Your task to perform on an android device: Open Maps and search for coffee Image 0: 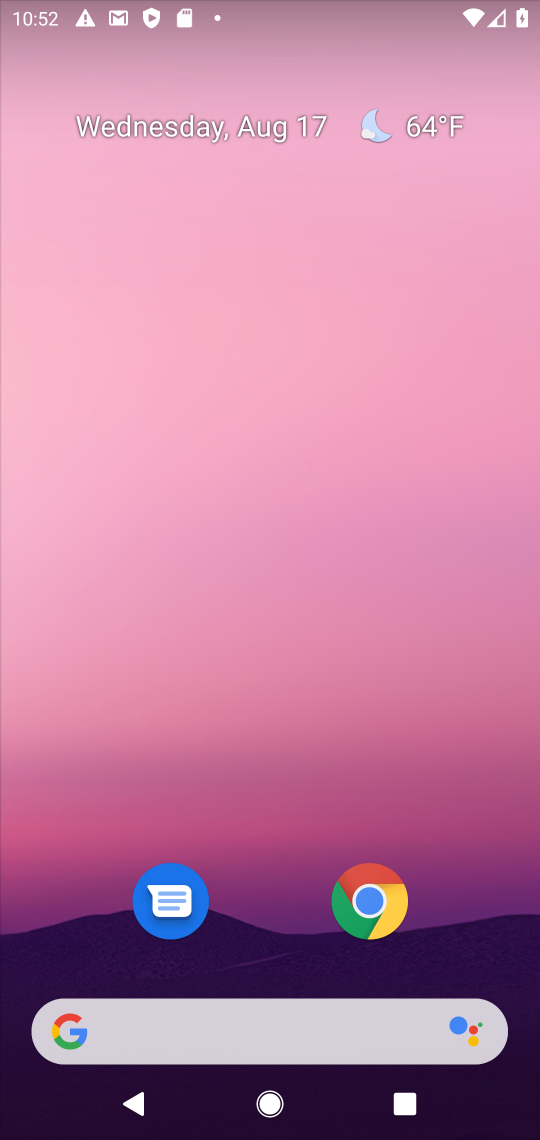
Step 0: press home button
Your task to perform on an android device: Open Maps and search for coffee Image 1: 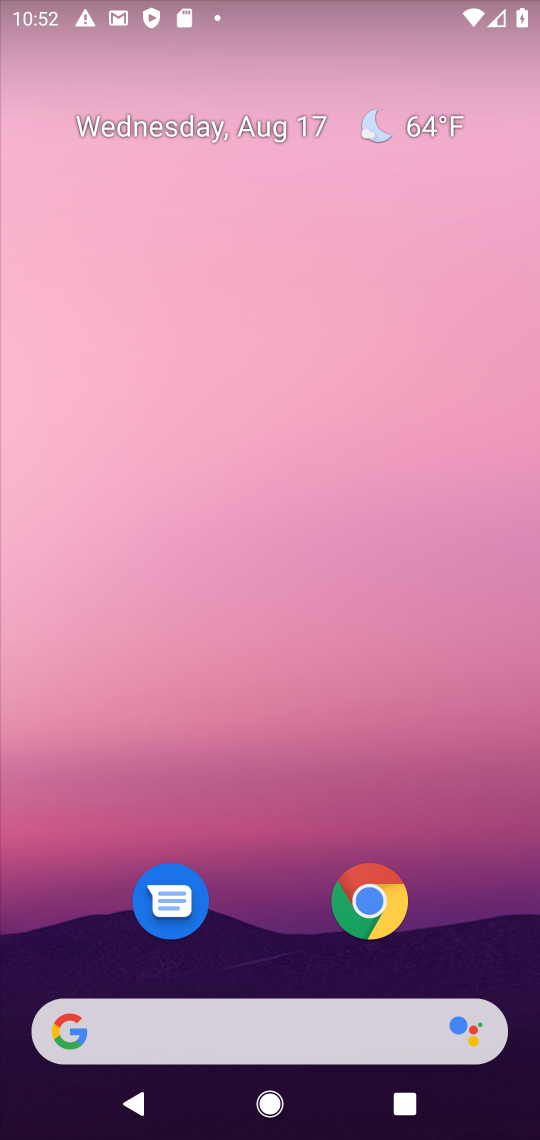
Step 1: click (394, 253)
Your task to perform on an android device: Open Maps and search for coffee Image 2: 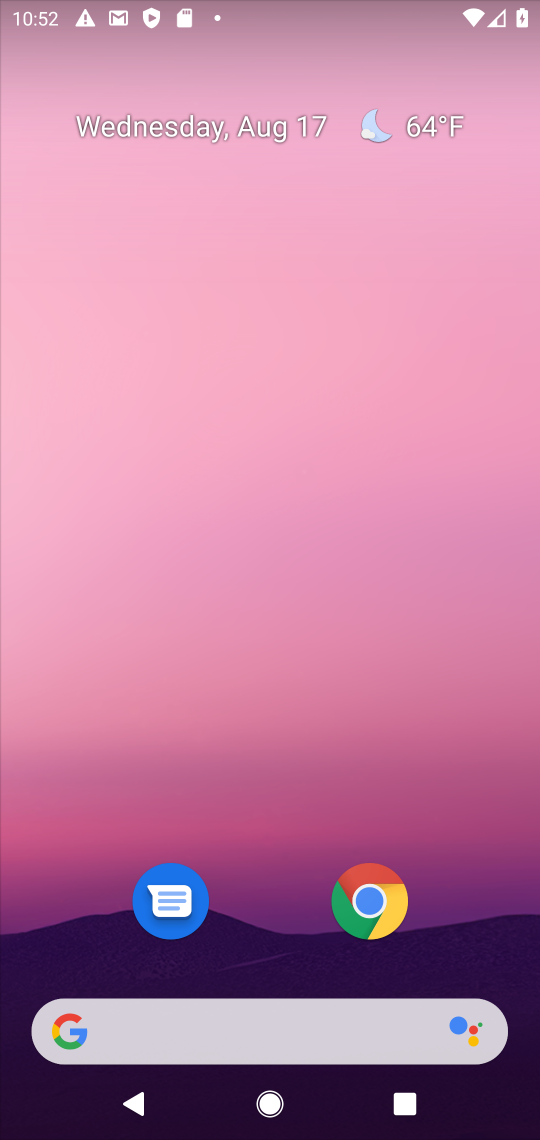
Step 2: drag from (346, 477) to (366, 346)
Your task to perform on an android device: Open Maps and search for coffee Image 3: 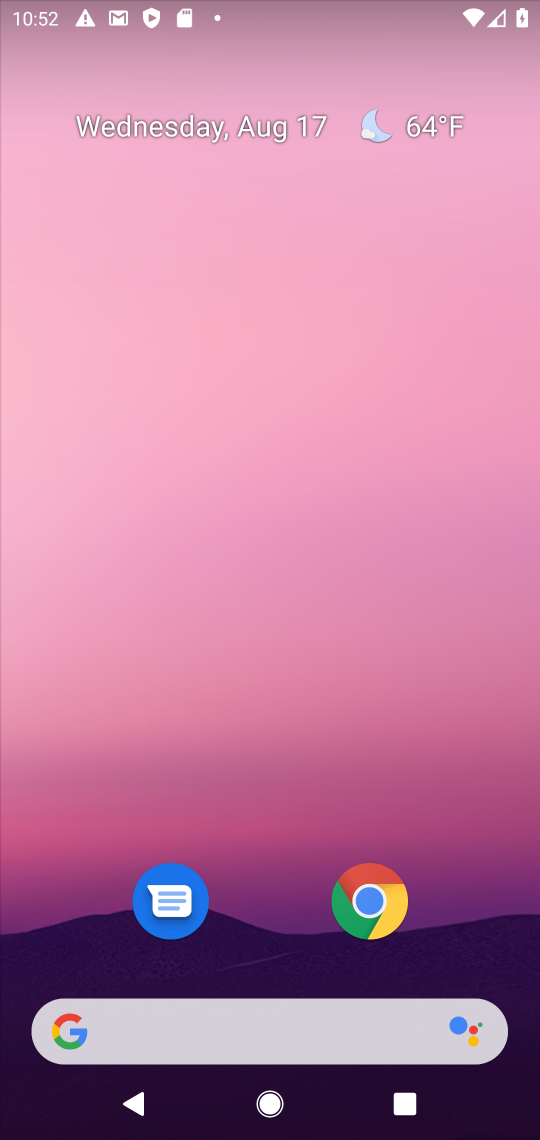
Step 3: drag from (296, 749) to (363, 238)
Your task to perform on an android device: Open Maps and search for coffee Image 4: 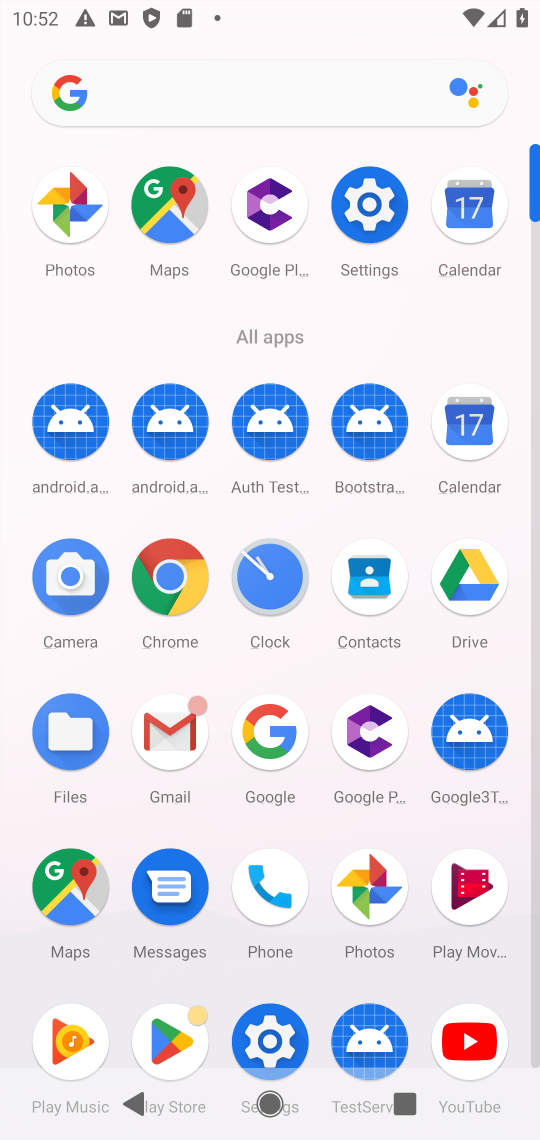
Step 4: click (171, 221)
Your task to perform on an android device: Open Maps and search for coffee Image 5: 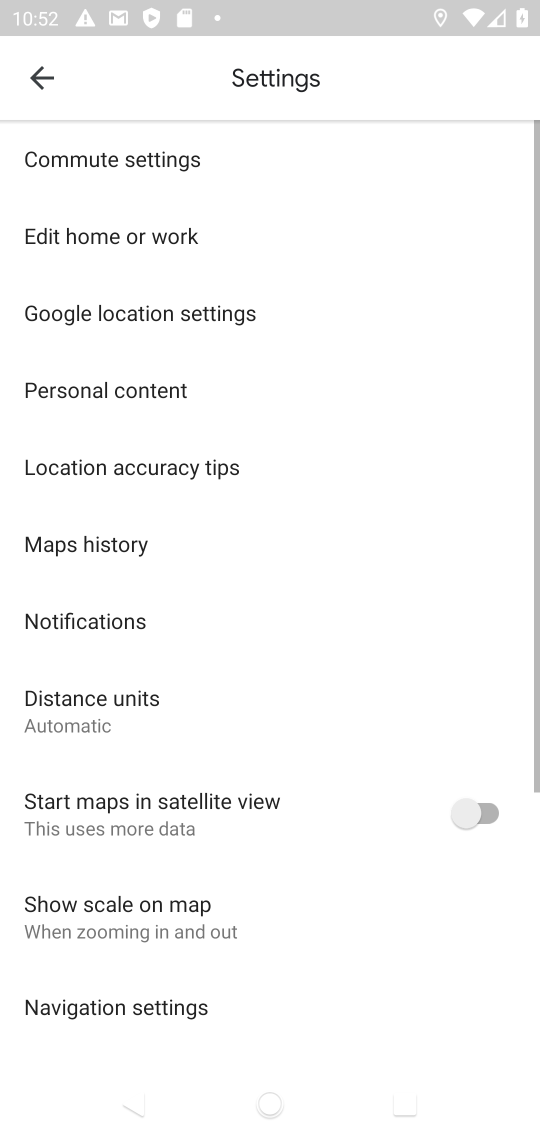
Step 5: click (51, 78)
Your task to perform on an android device: Open Maps and search for coffee Image 6: 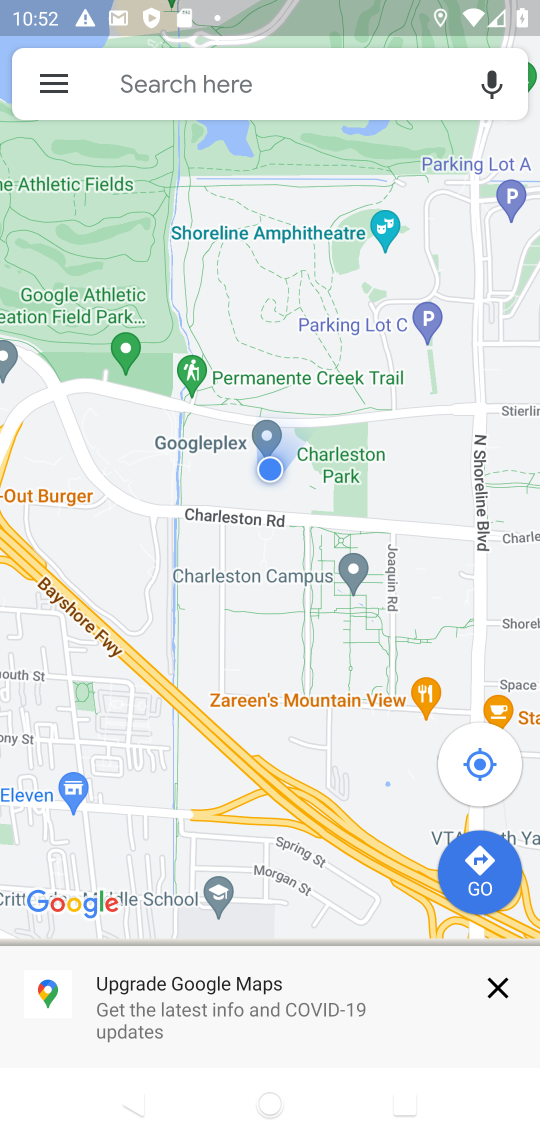
Step 6: type "coffee"
Your task to perform on an android device: Open Maps and search for coffee Image 7: 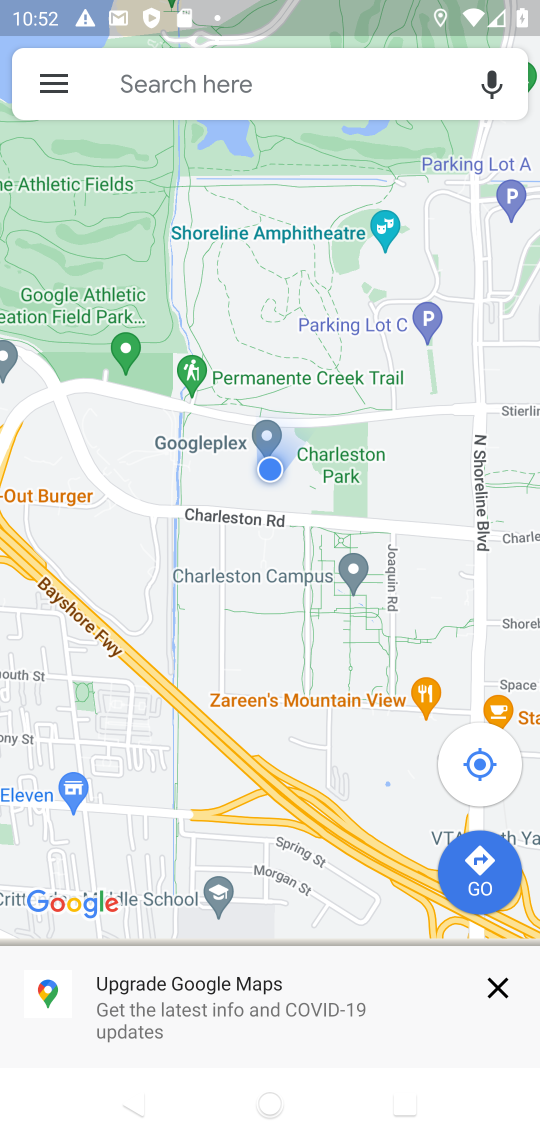
Step 7: click (159, 76)
Your task to perform on an android device: Open Maps and search for coffee Image 8: 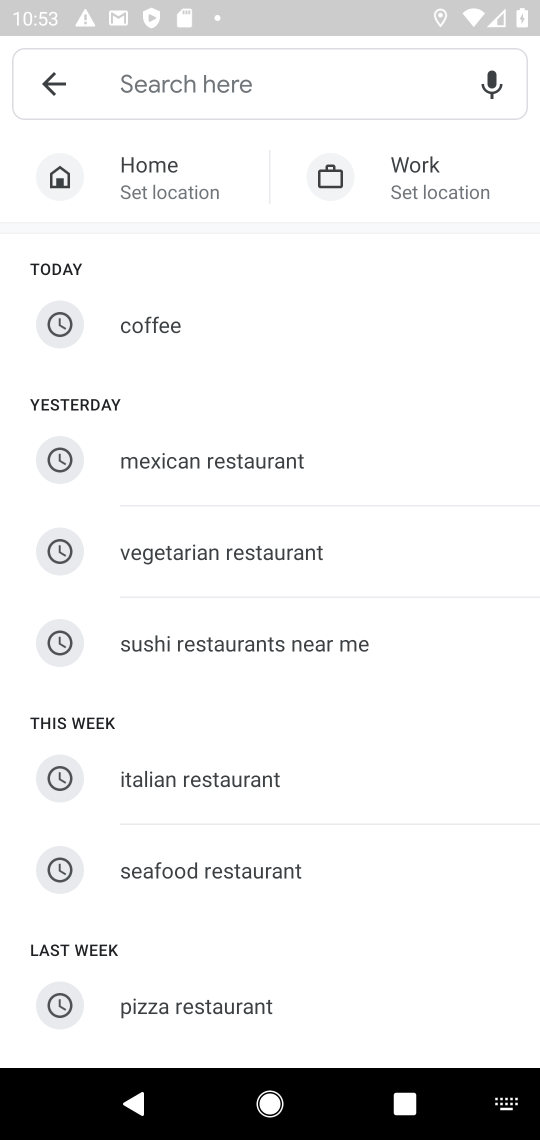
Step 8: click (128, 331)
Your task to perform on an android device: Open Maps and search for coffee Image 9: 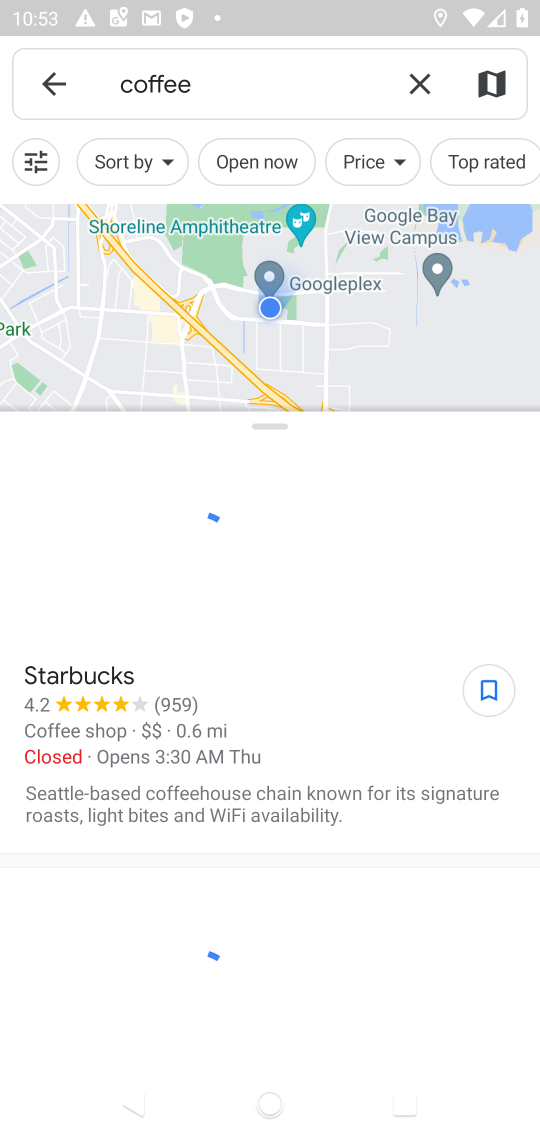
Step 9: task complete